Your task to perform on an android device: Open my contact list Image 0: 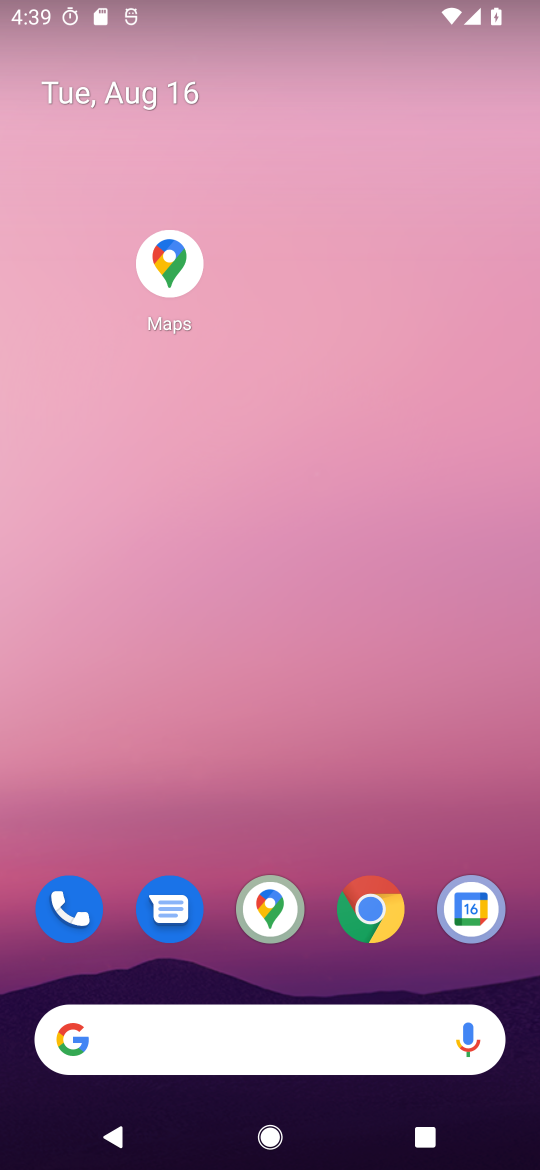
Step 0: drag from (230, 977) to (285, 268)
Your task to perform on an android device: Open my contact list Image 1: 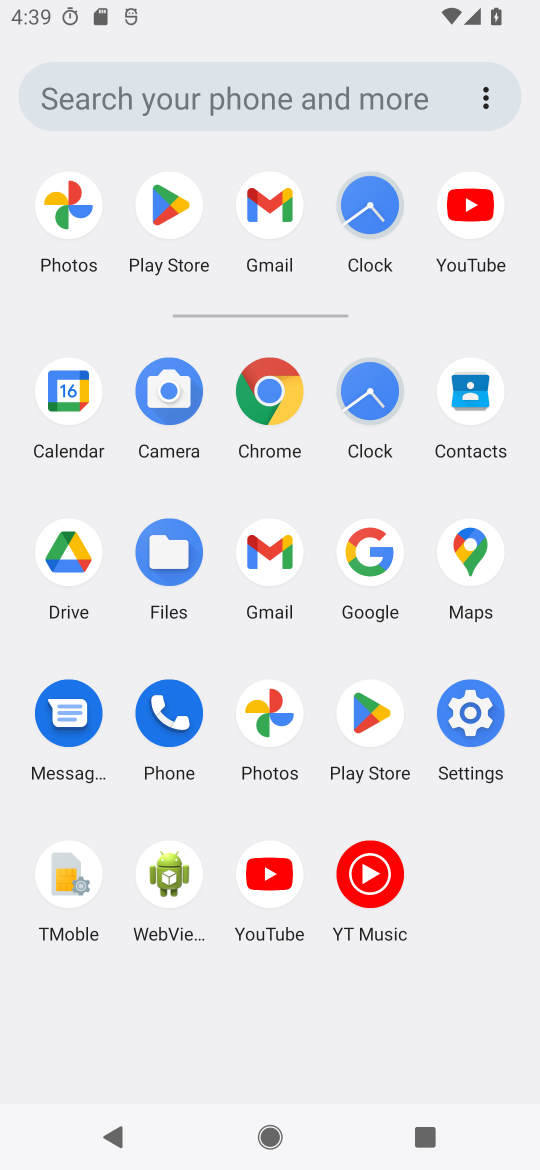
Step 1: click (455, 386)
Your task to perform on an android device: Open my contact list Image 2: 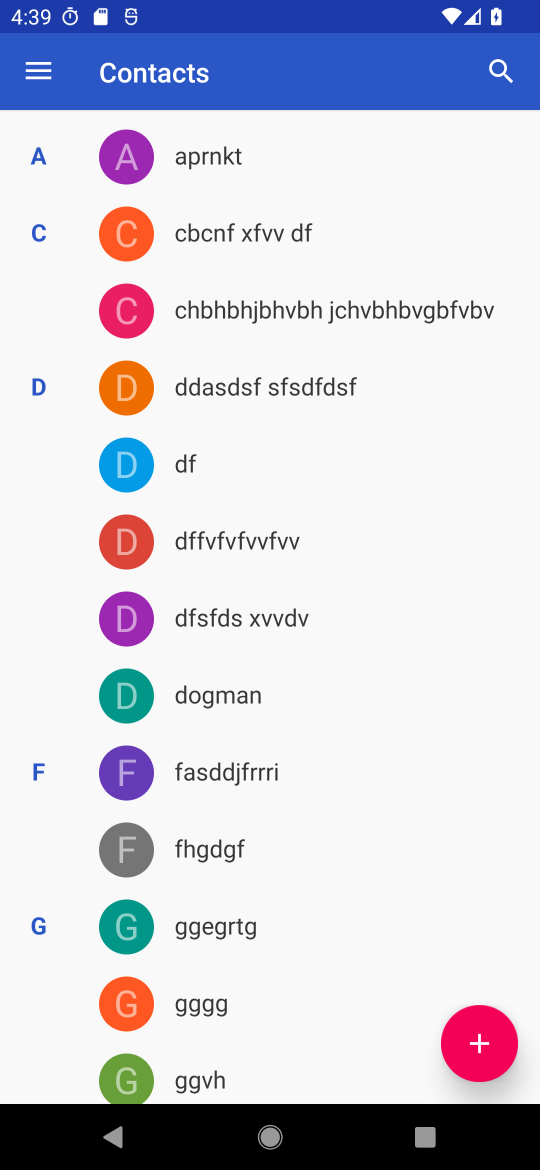
Step 2: task complete